Your task to perform on an android device: Open the stopwatch Image 0: 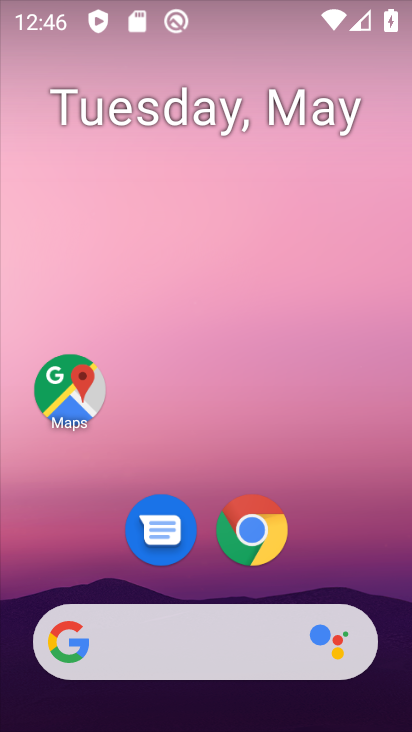
Step 0: drag from (207, 566) to (196, 251)
Your task to perform on an android device: Open the stopwatch Image 1: 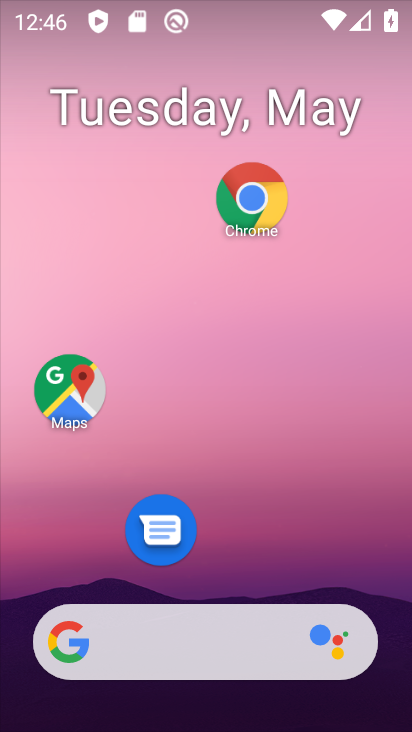
Step 1: drag from (201, 530) to (277, 156)
Your task to perform on an android device: Open the stopwatch Image 2: 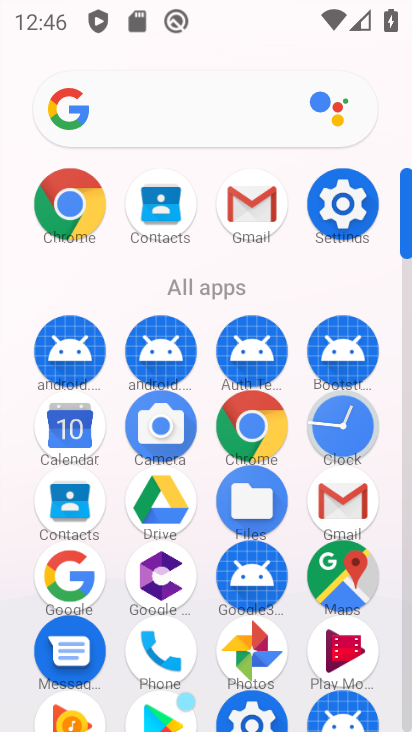
Step 2: click (344, 431)
Your task to perform on an android device: Open the stopwatch Image 3: 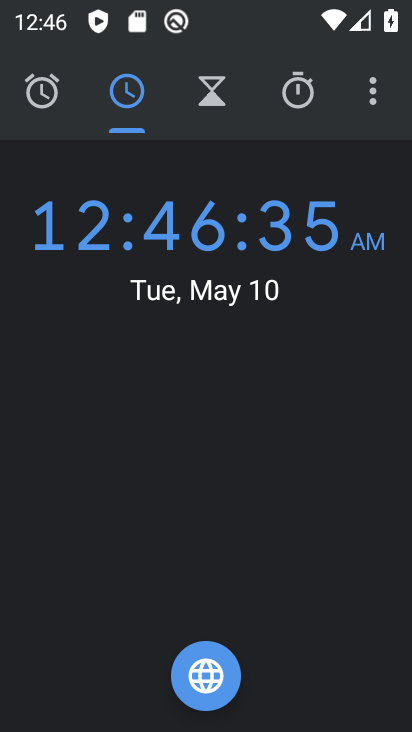
Step 3: click (303, 101)
Your task to perform on an android device: Open the stopwatch Image 4: 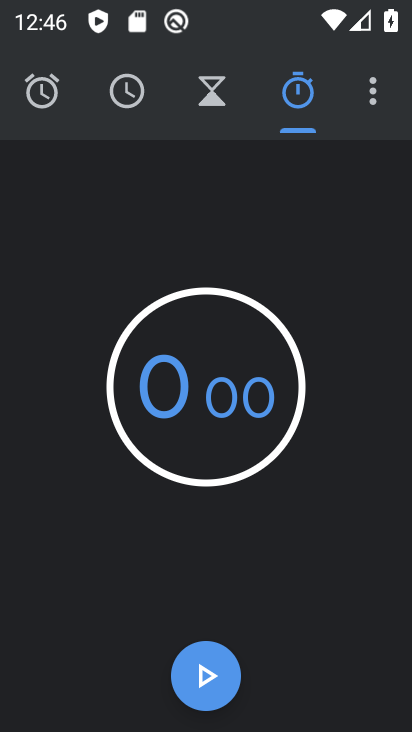
Step 4: click (234, 355)
Your task to perform on an android device: Open the stopwatch Image 5: 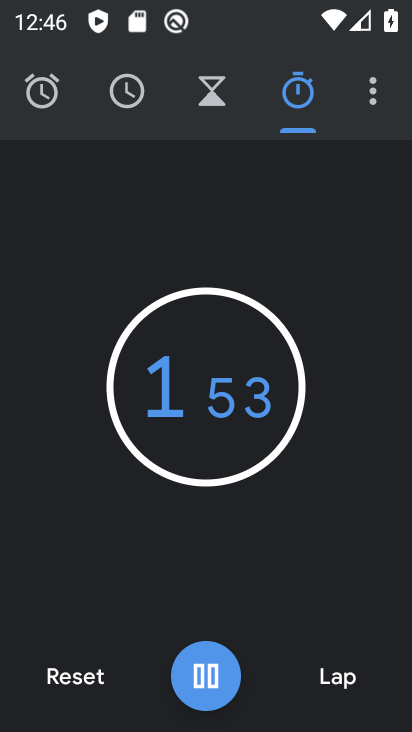
Step 5: task complete